Your task to perform on an android device: turn off translation in the chrome app Image 0: 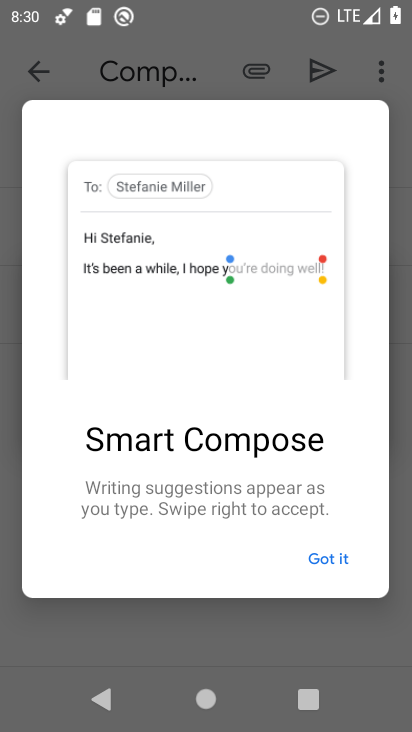
Step 0: press home button
Your task to perform on an android device: turn off translation in the chrome app Image 1: 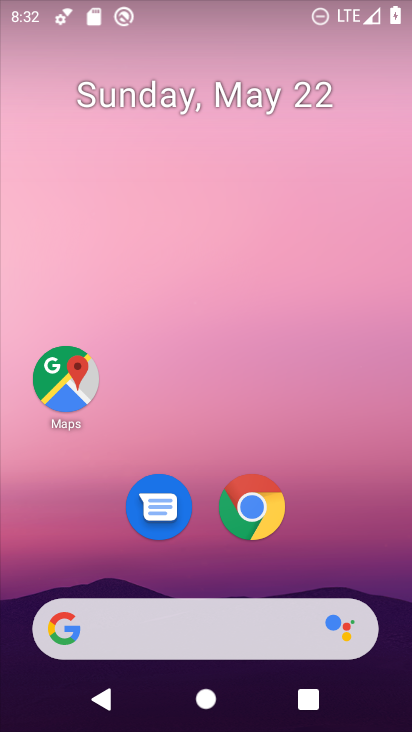
Step 1: click (266, 511)
Your task to perform on an android device: turn off translation in the chrome app Image 2: 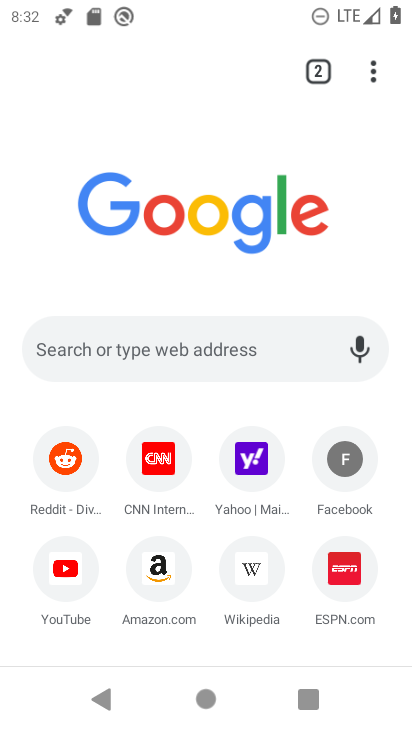
Step 2: click (366, 62)
Your task to perform on an android device: turn off translation in the chrome app Image 3: 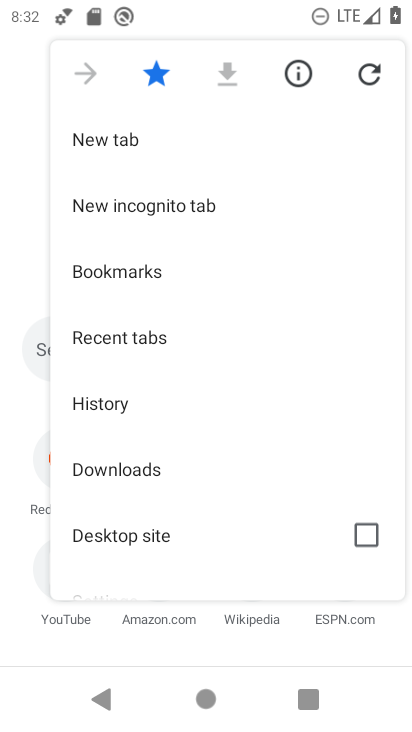
Step 3: drag from (144, 575) to (116, 60)
Your task to perform on an android device: turn off translation in the chrome app Image 4: 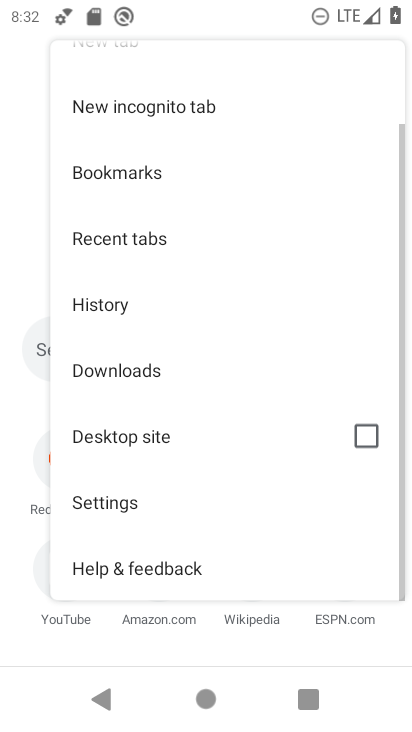
Step 4: click (142, 496)
Your task to perform on an android device: turn off translation in the chrome app Image 5: 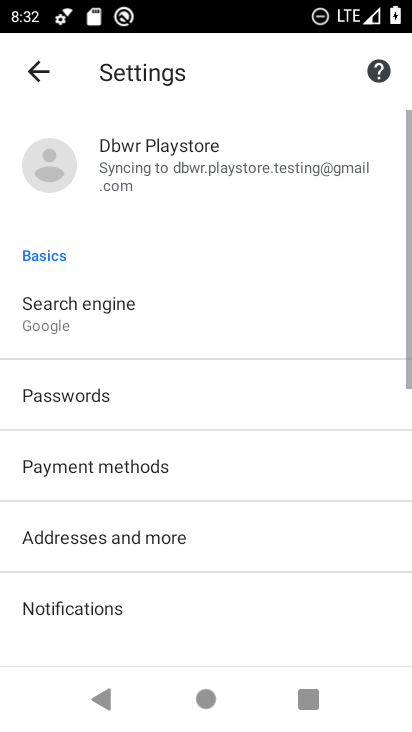
Step 5: drag from (265, 612) to (217, 14)
Your task to perform on an android device: turn off translation in the chrome app Image 6: 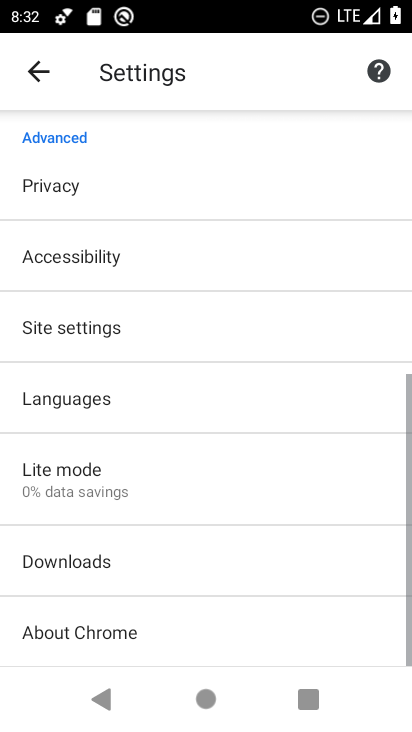
Step 6: click (110, 391)
Your task to perform on an android device: turn off translation in the chrome app Image 7: 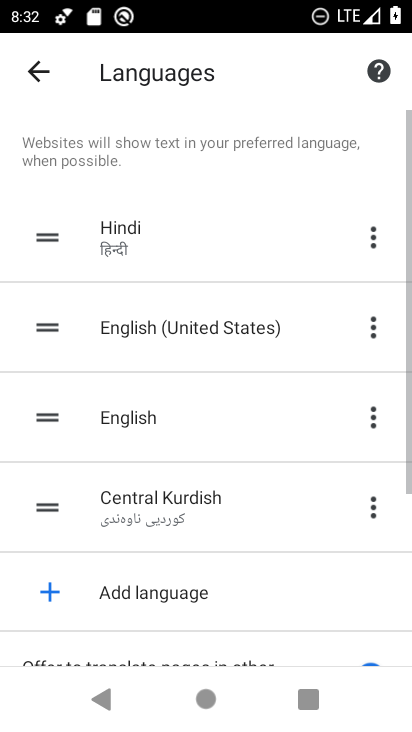
Step 7: drag from (291, 607) to (214, 111)
Your task to perform on an android device: turn off translation in the chrome app Image 8: 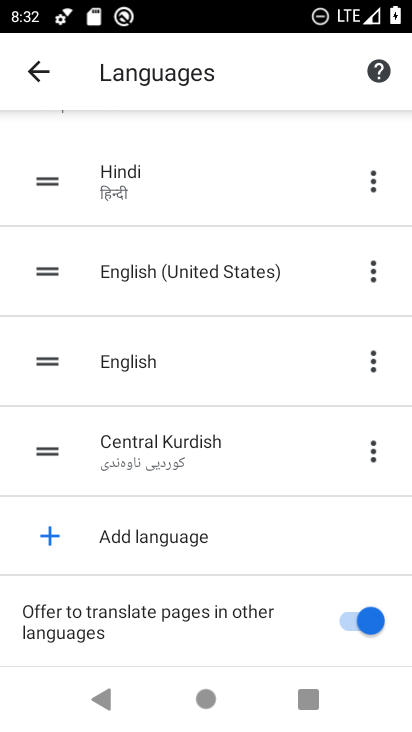
Step 8: click (370, 622)
Your task to perform on an android device: turn off translation in the chrome app Image 9: 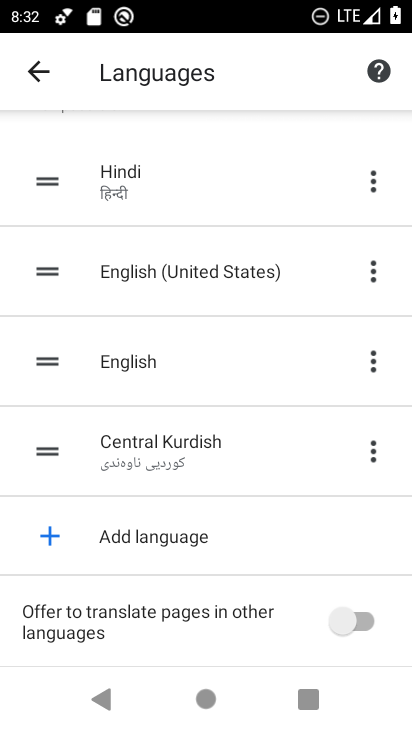
Step 9: task complete